Your task to perform on an android device: see sites visited before in the chrome app Image 0: 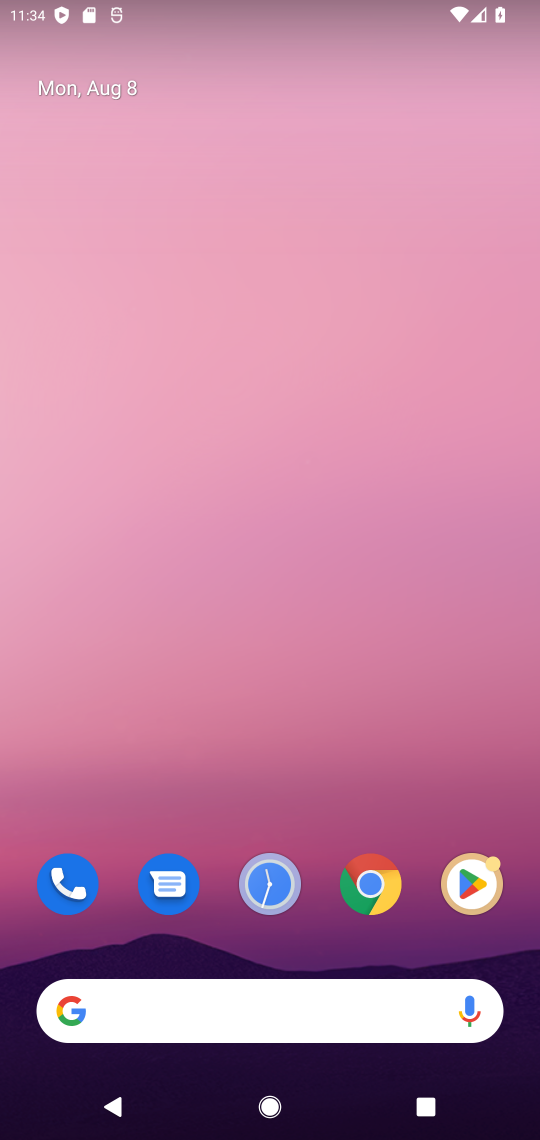
Step 0: click (379, 899)
Your task to perform on an android device: see sites visited before in the chrome app Image 1: 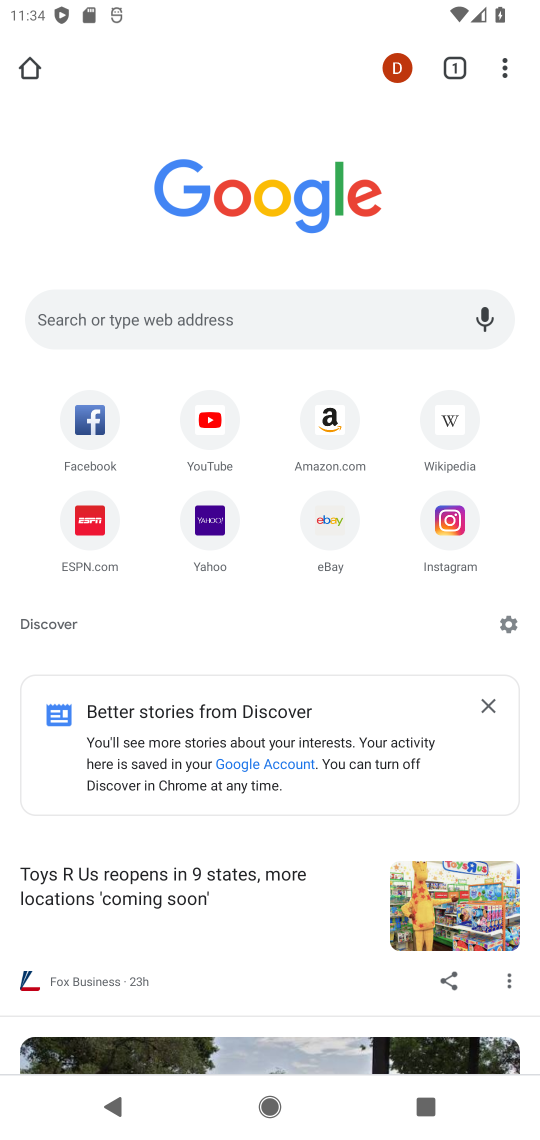
Step 1: click (505, 57)
Your task to perform on an android device: see sites visited before in the chrome app Image 2: 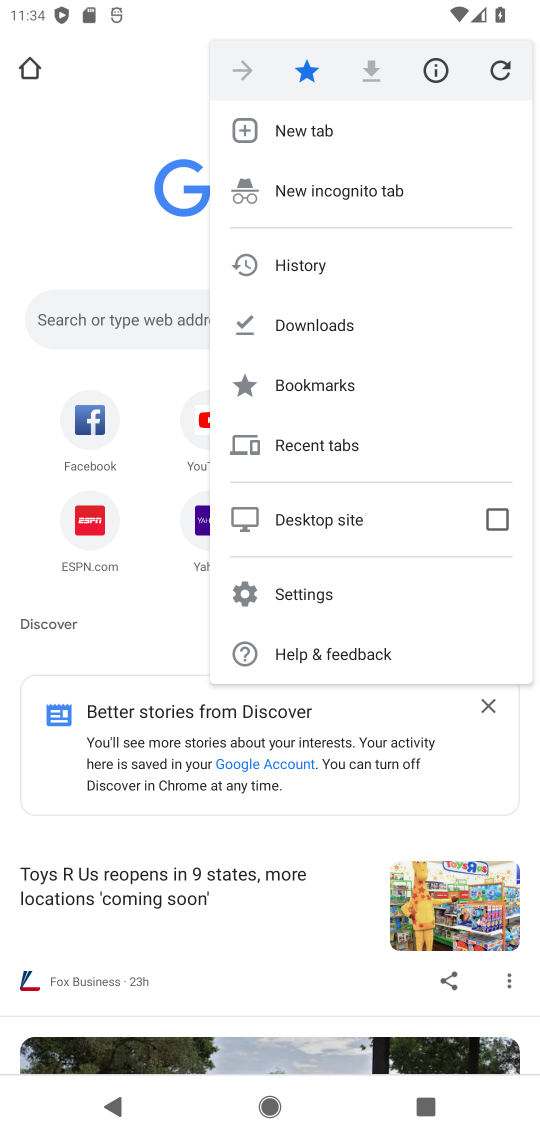
Step 2: click (373, 450)
Your task to perform on an android device: see sites visited before in the chrome app Image 3: 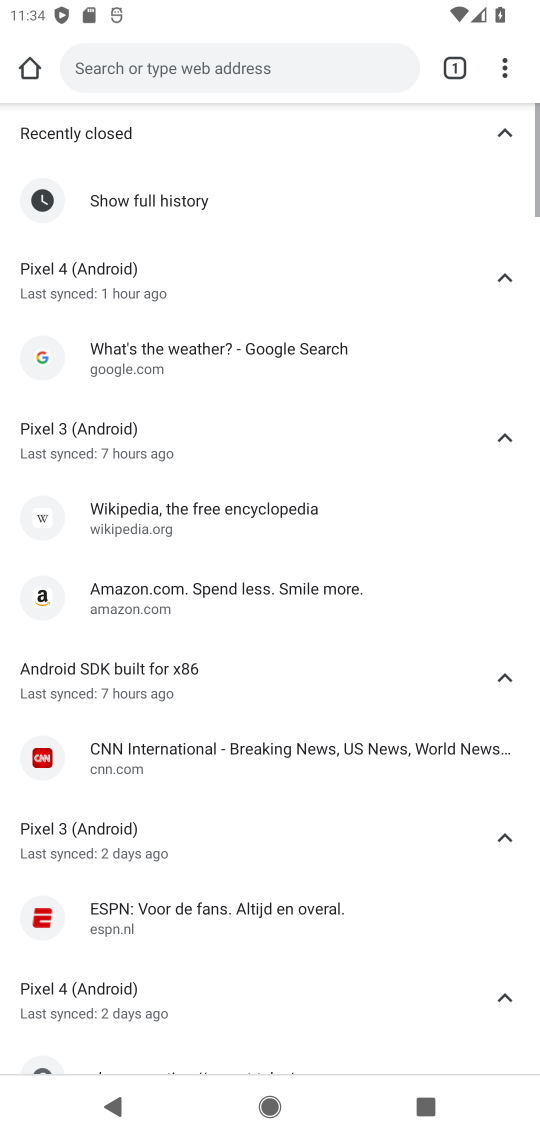
Step 3: task complete